Your task to perform on an android device: Go to Google Image 0: 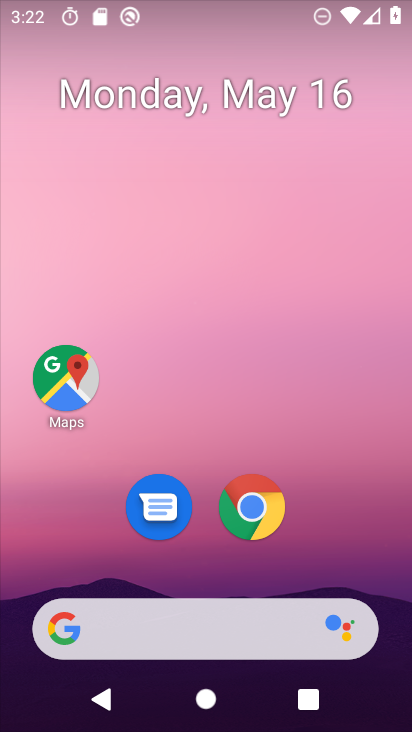
Step 0: drag from (352, 523) to (306, 8)
Your task to perform on an android device: Go to Google Image 1: 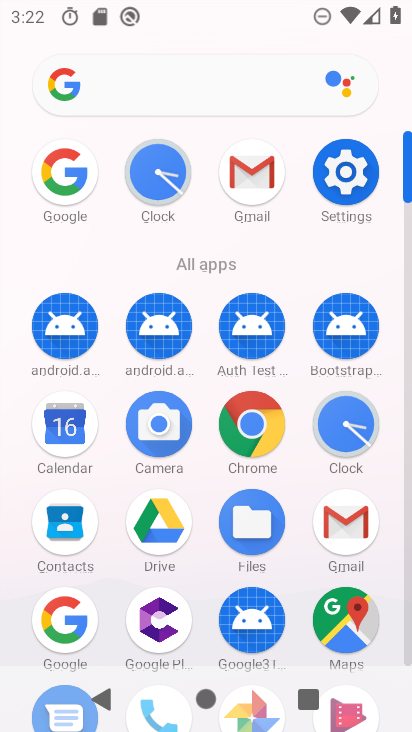
Step 1: click (64, 609)
Your task to perform on an android device: Go to Google Image 2: 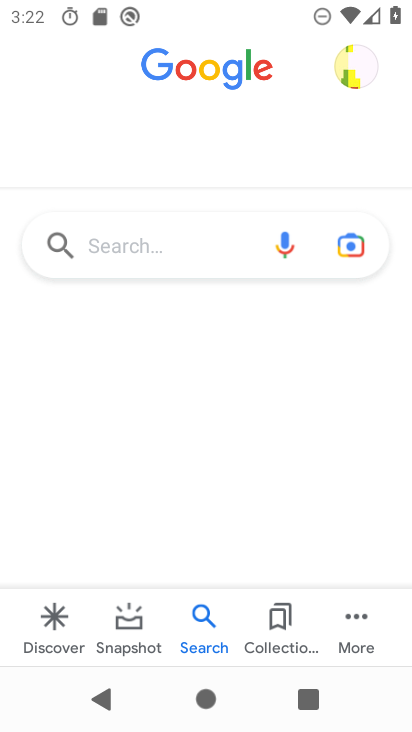
Step 2: task complete